Your task to perform on an android device: Go to display settings Image 0: 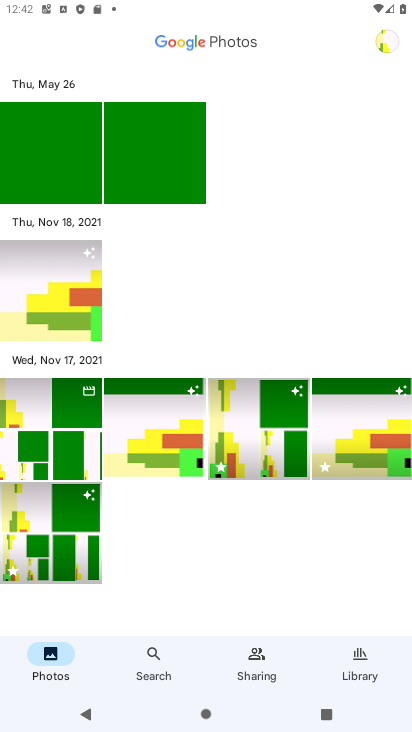
Step 0: press home button
Your task to perform on an android device: Go to display settings Image 1: 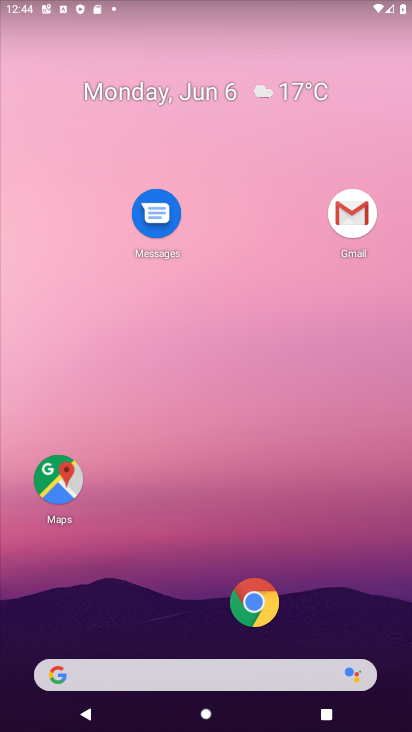
Step 1: task complete